Your task to perform on an android device: Open calendar and show me the third week of next month Image 0: 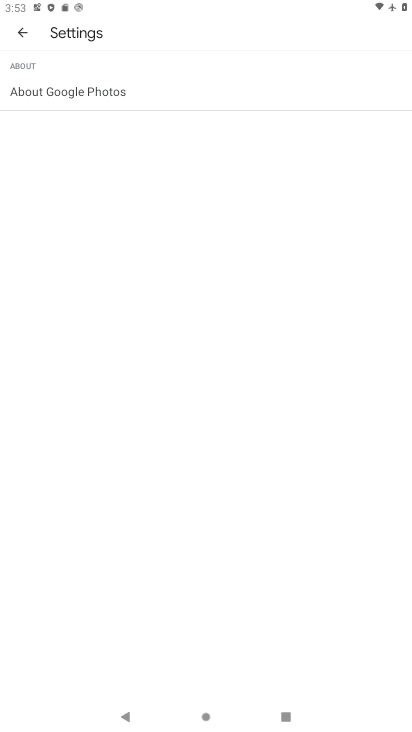
Step 0: click (21, 36)
Your task to perform on an android device: Open calendar and show me the third week of next month Image 1: 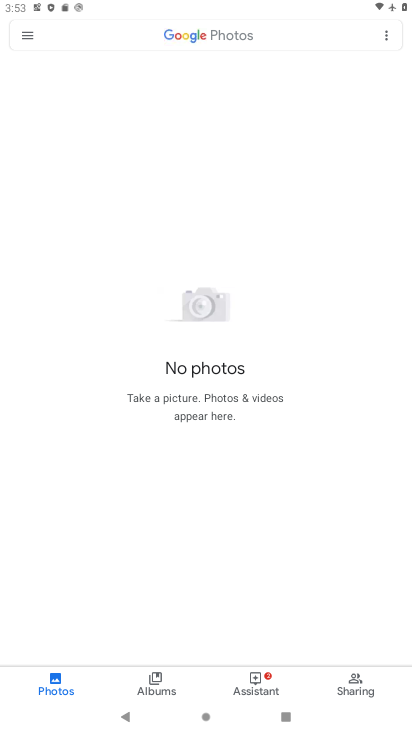
Step 1: press back button
Your task to perform on an android device: Open calendar and show me the third week of next month Image 2: 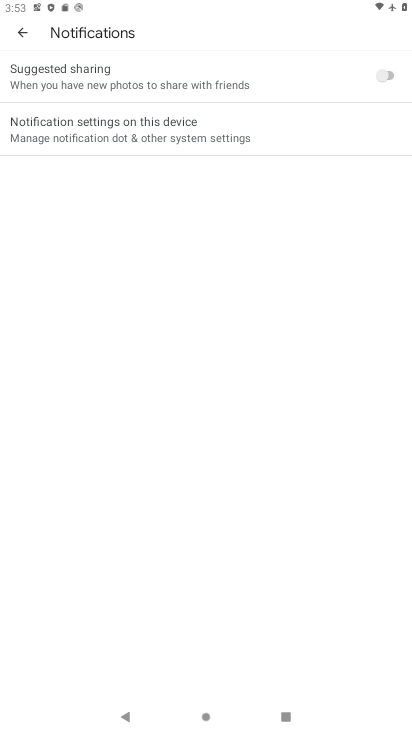
Step 2: press home button
Your task to perform on an android device: Open calendar and show me the third week of next month Image 3: 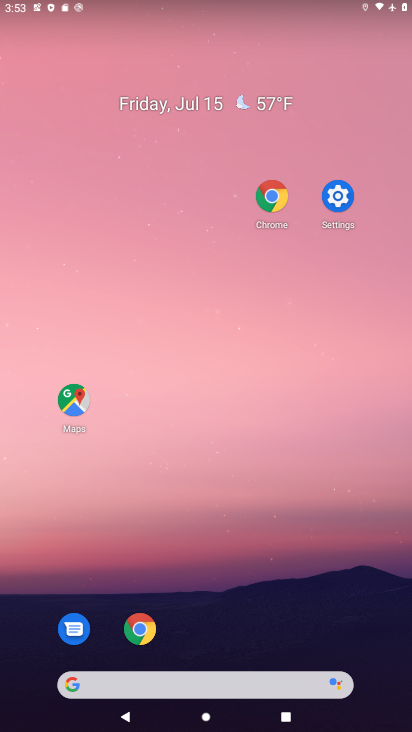
Step 3: drag from (235, 637) to (196, 128)
Your task to perform on an android device: Open calendar and show me the third week of next month Image 4: 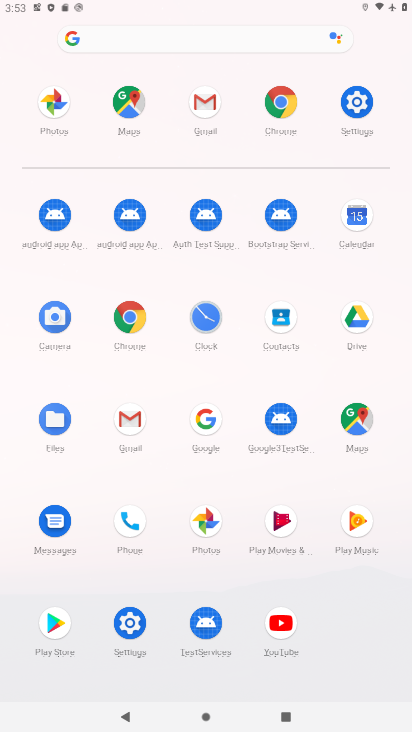
Step 4: click (353, 215)
Your task to perform on an android device: Open calendar and show me the third week of next month Image 5: 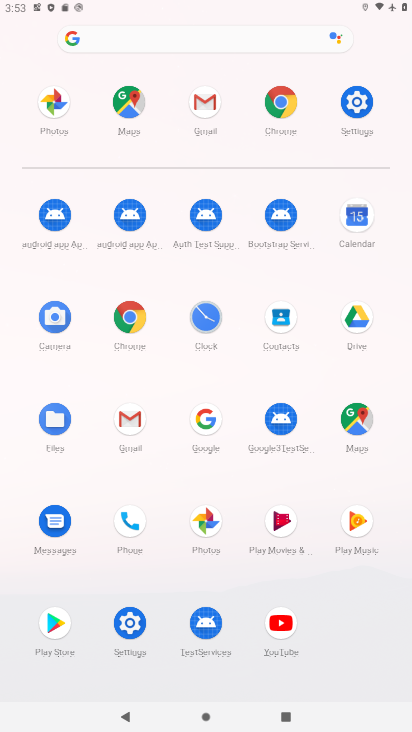
Step 5: click (354, 214)
Your task to perform on an android device: Open calendar and show me the third week of next month Image 6: 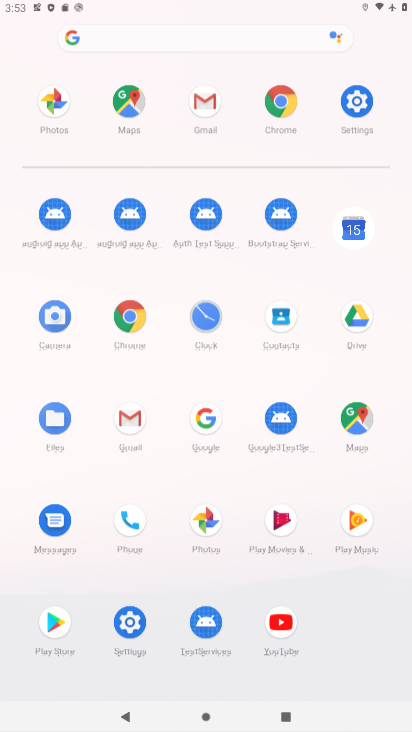
Step 6: click (354, 214)
Your task to perform on an android device: Open calendar and show me the third week of next month Image 7: 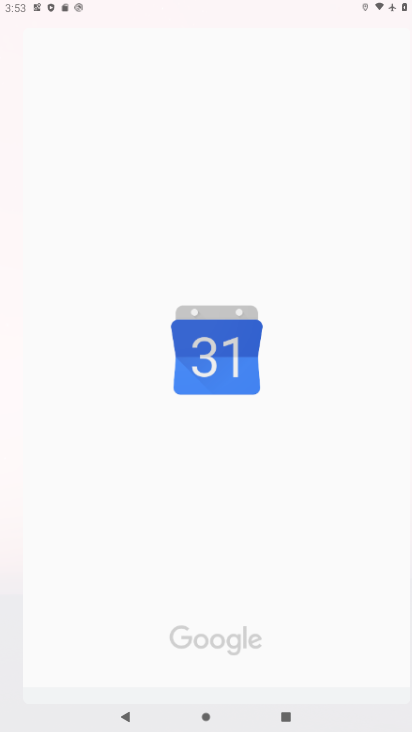
Step 7: click (354, 214)
Your task to perform on an android device: Open calendar and show me the third week of next month Image 8: 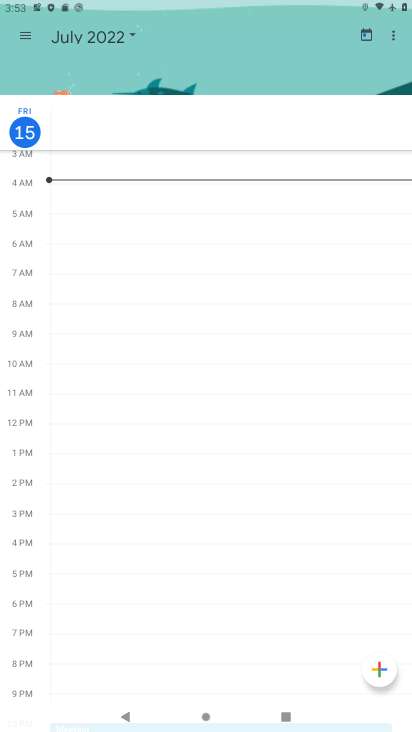
Step 8: click (23, 35)
Your task to perform on an android device: Open calendar and show me the third week of next month Image 9: 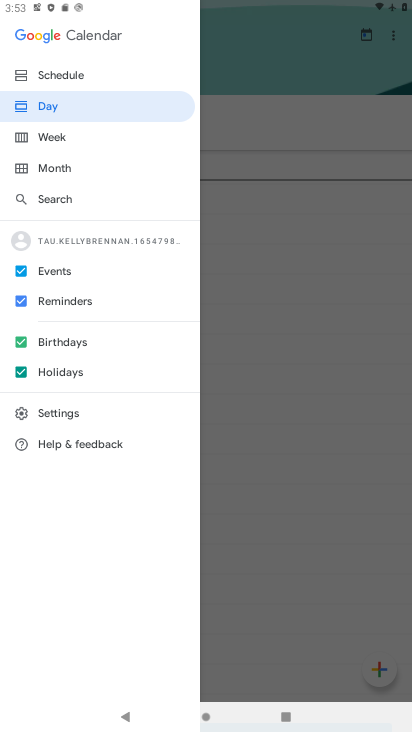
Step 9: click (53, 109)
Your task to perform on an android device: Open calendar and show me the third week of next month Image 10: 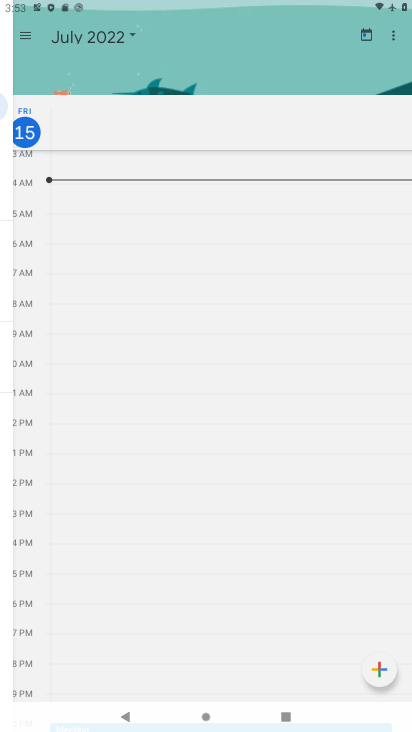
Step 10: click (286, 310)
Your task to perform on an android device: Open calendar and show me the third week of next month Image 11: 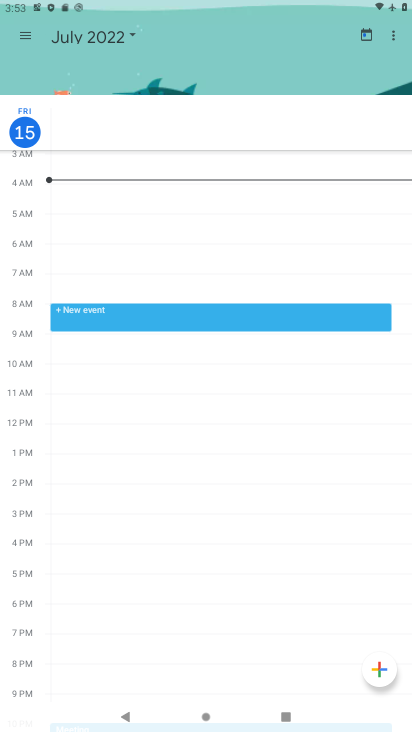
Step 11: click (132, 33)
Your task to perform on an android device: Open calendar and show me the third week of next month Image 12: 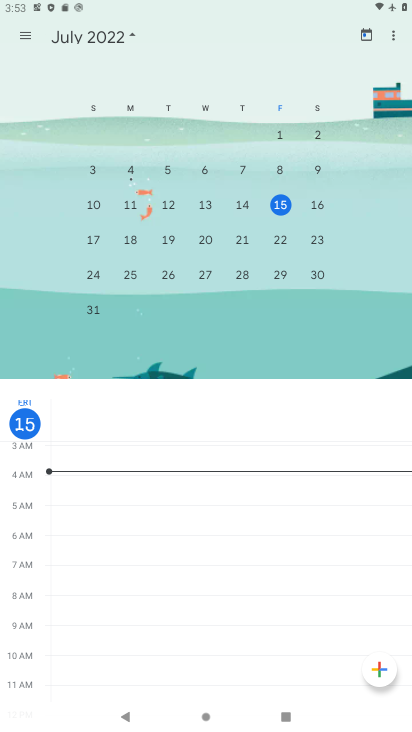
Step 12: drag from (342, 197) to (25, 241)
Your task to perform on an android device: Open calendar and show me the third week of next month Image 13: 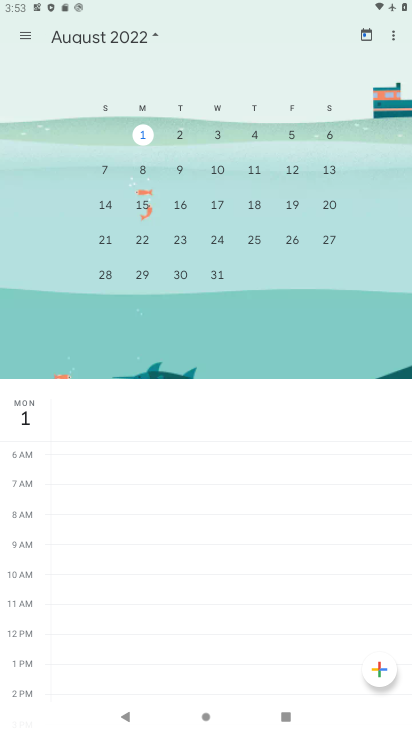
Step 13: drag from (321, 207) to (18, 254)
Your task to perform on an android device: Open calendar and show me the third week of next month Image 14: 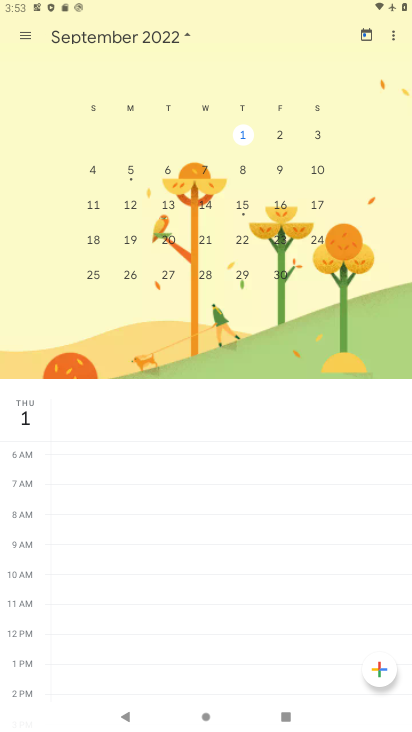
Step 14: drag from (95, 224) to (408, 193)
Your task to perform on an android device: Open calendar and show me the third week of next month Image 15: 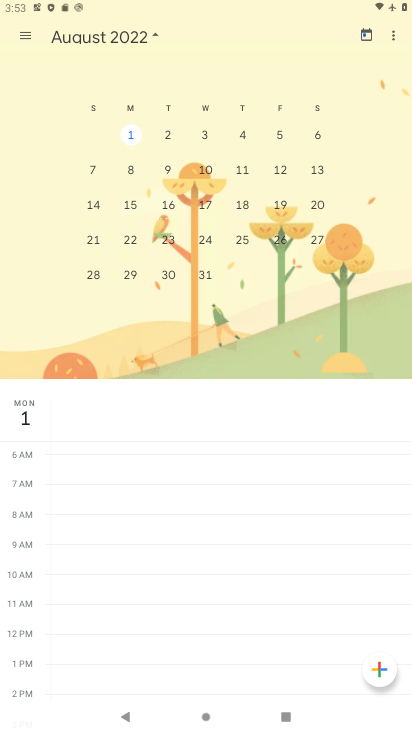
Step 15: drag from (139, 212) to (396, 248)
Your task to perform on an android device: Open calendar and show me the third week of next month Image 16: 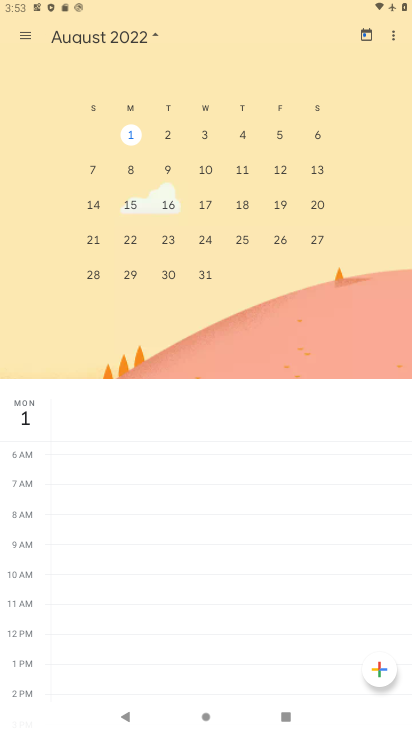
Step 16: click (206, 208)
Your task to perform on an android device: Open calendar and show me the third week of next month Image 17: 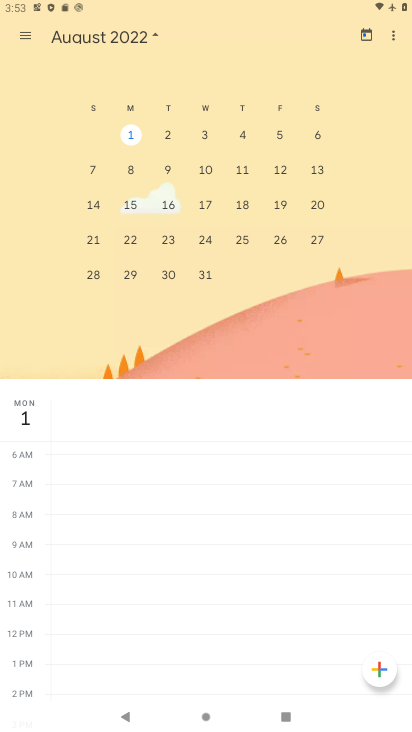
Step 17: click (206, 208)
Your task to perform on an android device: Open calendar and show me the third week of next month Image 18: 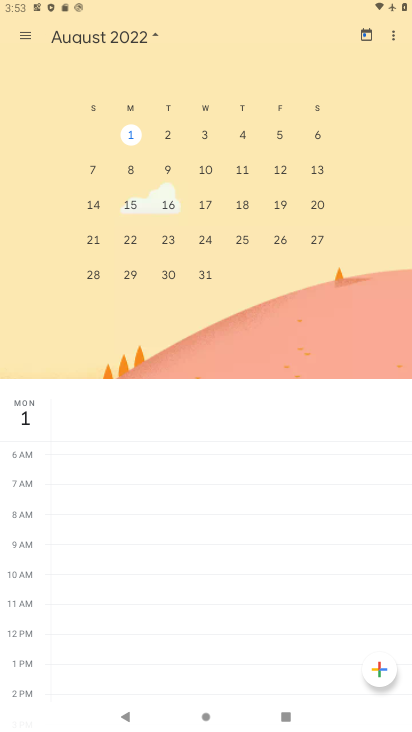
Step 18: click (206, 208)
Your task to perform on an android device: Open calendar and show me the third week of next month Image 19: 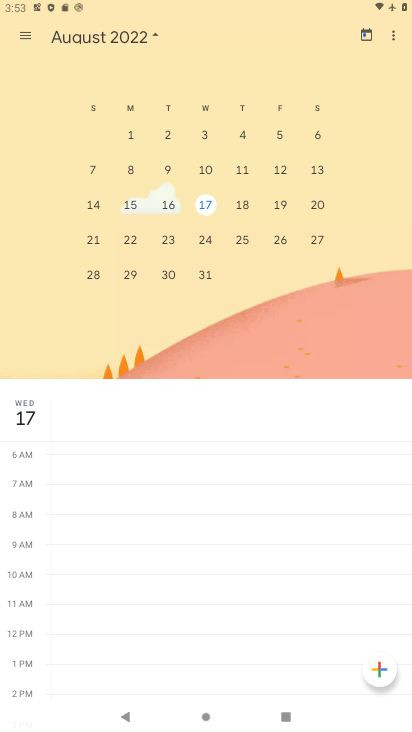
Step 19: click (206, 207)
Your task to perform on an android device: Open calendar and show me the third week of next month Image 20: 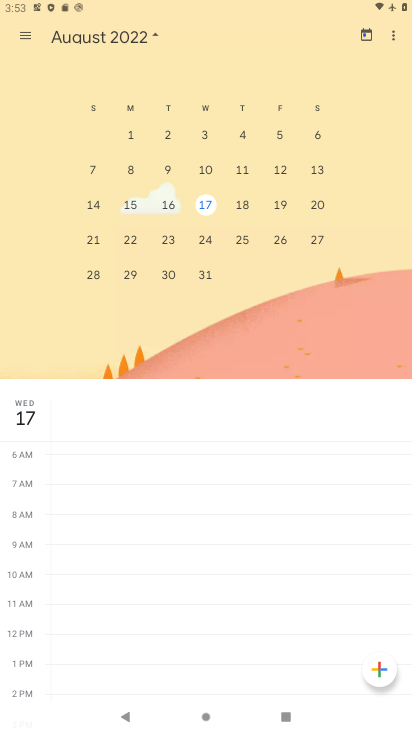
Step 20: click (209, 200)
Your task to perform on an android device: Open calendar and show me the third week of next month Image 21: 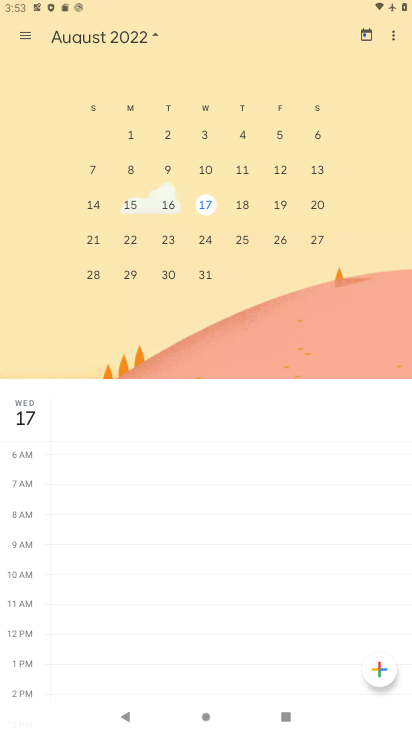
Step 21: task complete